Your task to perform on an android device: Search for seafood restaurants on Google Maps Image 0: 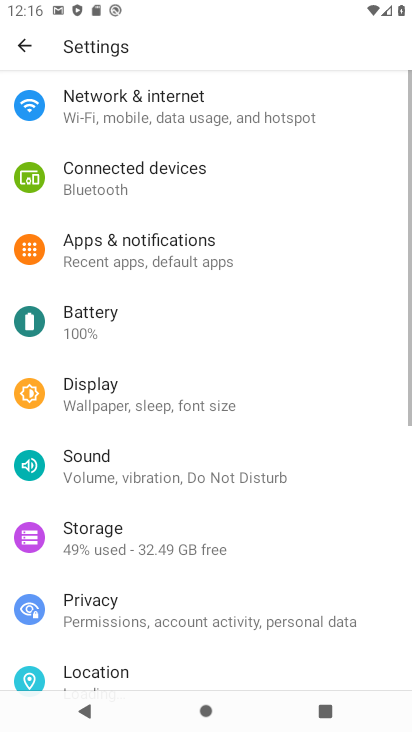
Step 0: press home button
Your task to perform on an android device: Search for seafood restaurants on Google Maps Image 1: 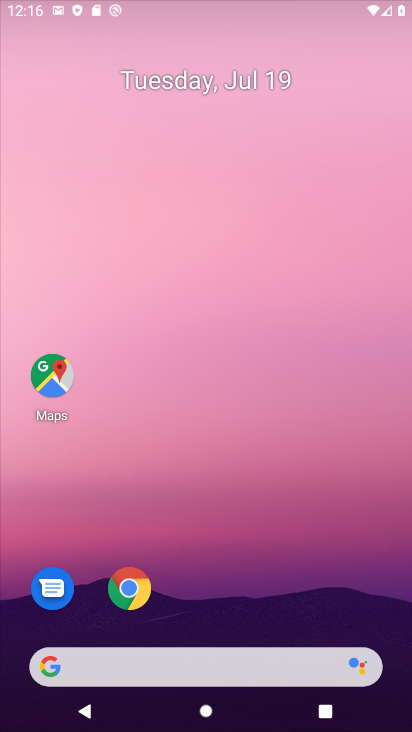
Step 1: drag from (376, 603) to (192, 35)
Your task to perform on an android device: Search for seafood restaurants on Google Maps Image 2: 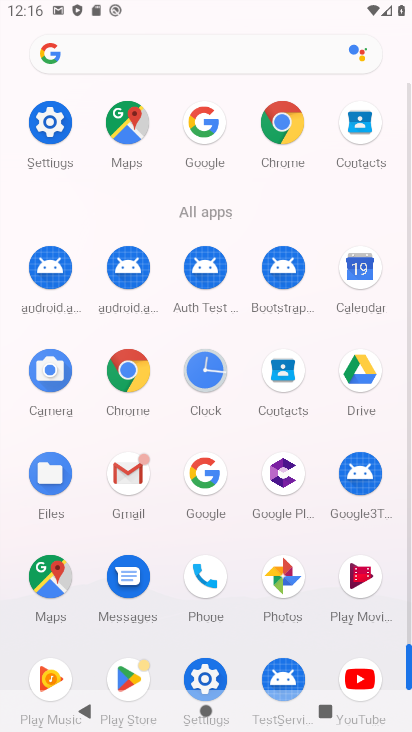
Step 2: click (40, 579)
Your task to perform on an android device: Search for seafood restaurants on Google Maps Image 3: 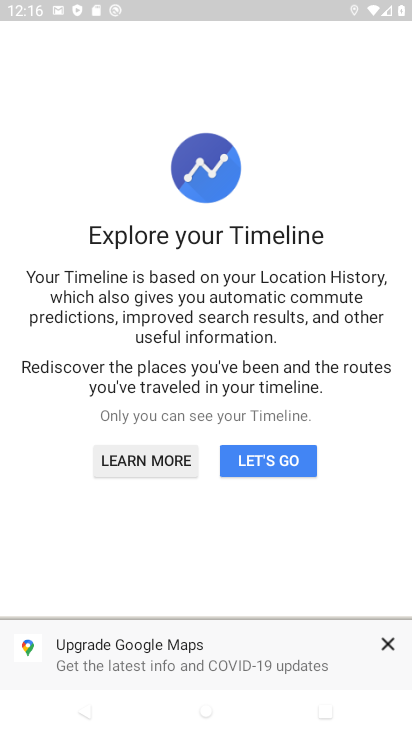
Step 3: press back button
Your task to perform on an android device: Search for seafood restaurants on Google Maps Image 4: 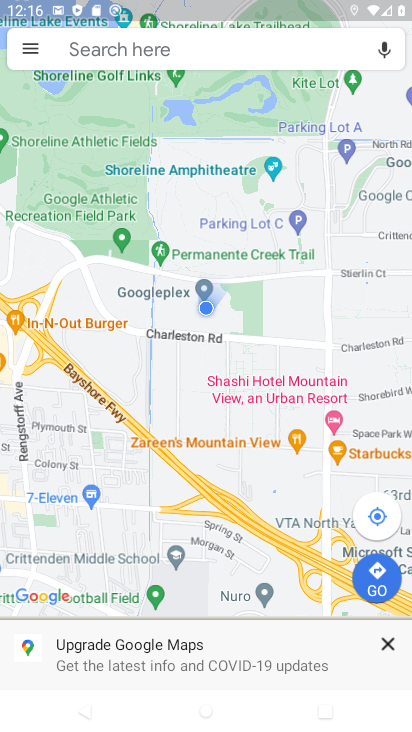
Step 4: click (129, 59)
Your task to perform on an android device: Search for seafood restaurants on Google Maps Image 5: 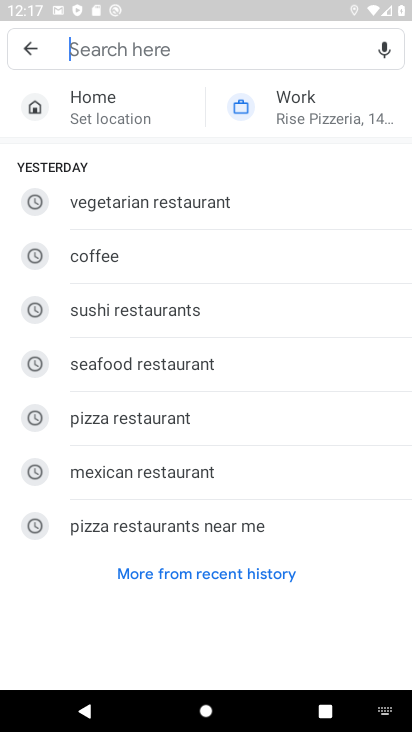
Step 5: click (146, 345)
Your task to perform on an android device: Search for seafood restaurants on Google Maps Image 6: 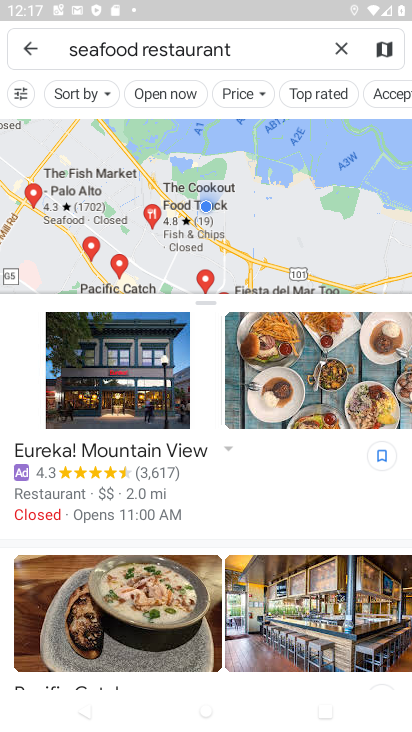
Step 6: task complete